Your task to perform on an android device: Open Amazon Image 0: 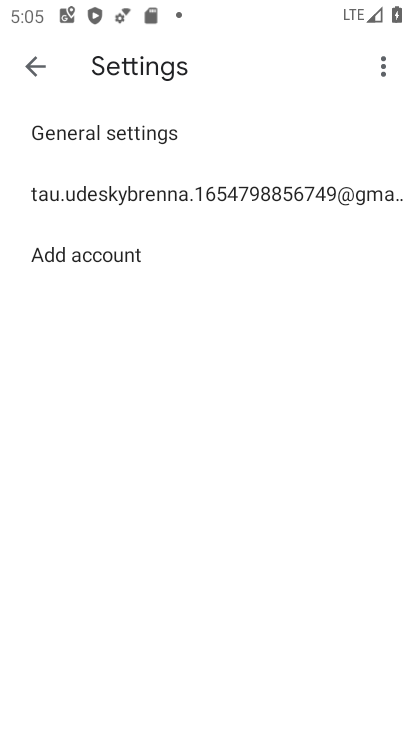
Step 0: press home button
Your task to perform on an android device: Open Amazon Image 1: 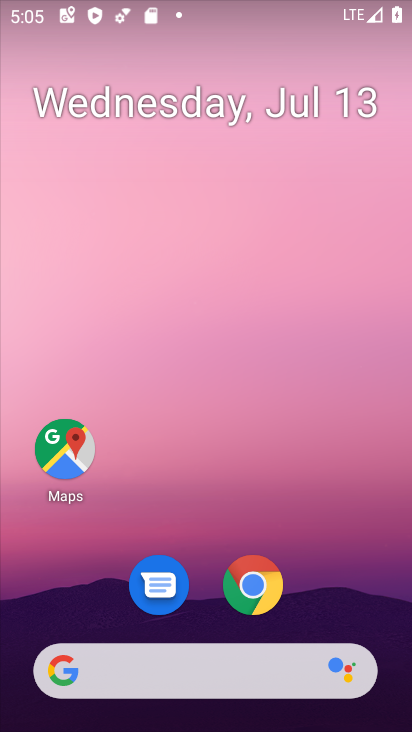
Step 1: click (257, 571)
Your task to perform on an android device: Open Amazon Image 2: 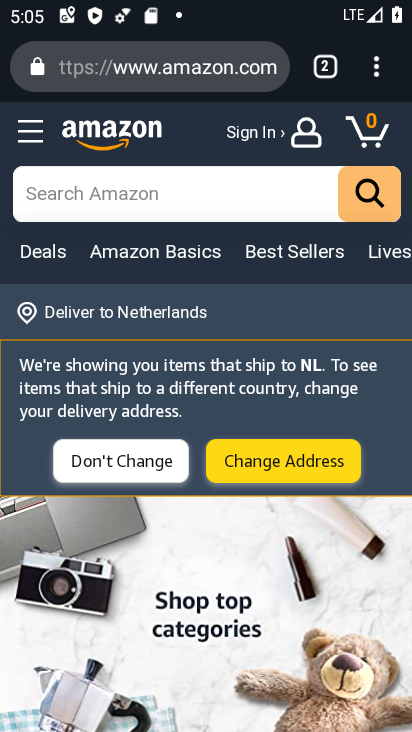
Step 2: task complete